Your task to perform on an android device: turn on wifi Image 0: 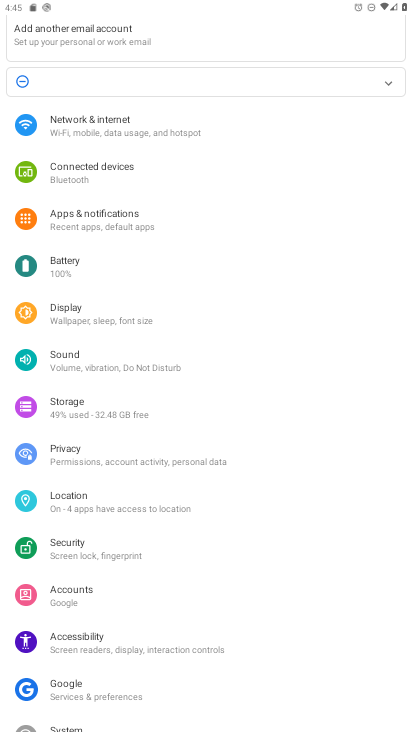
Step 0: click (87, 117)
Your task to perform on an android device: turn on wifi Image 1: 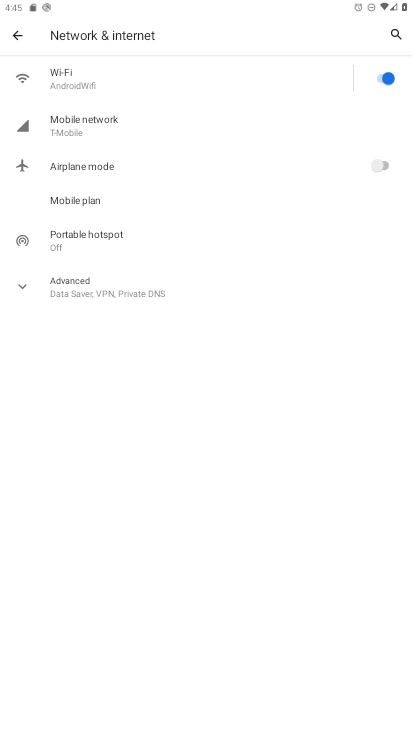
Step 1: click (127, 91)
Your task to perform on an android device: turn on wifi Image 2: 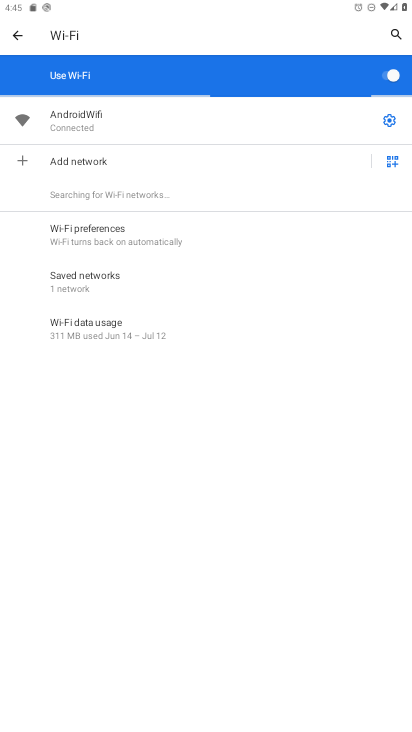
Step 2: task complete